Your task to perform on an android device: Go to ESPN.com Image 0: 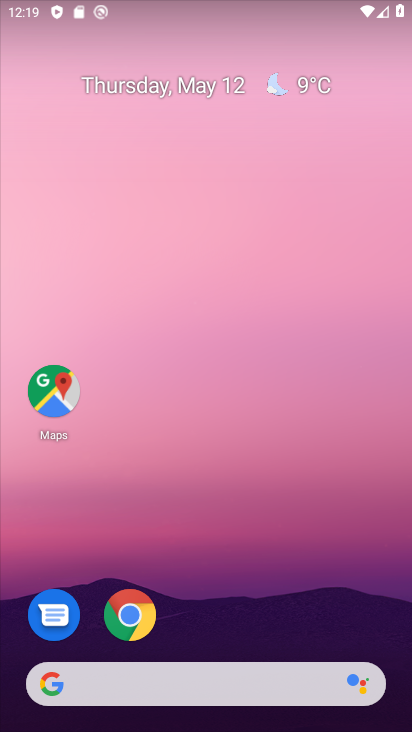
Step 0: click (132, 614)
Your task to perform on an android device: Go to ESPN.com Image 1: 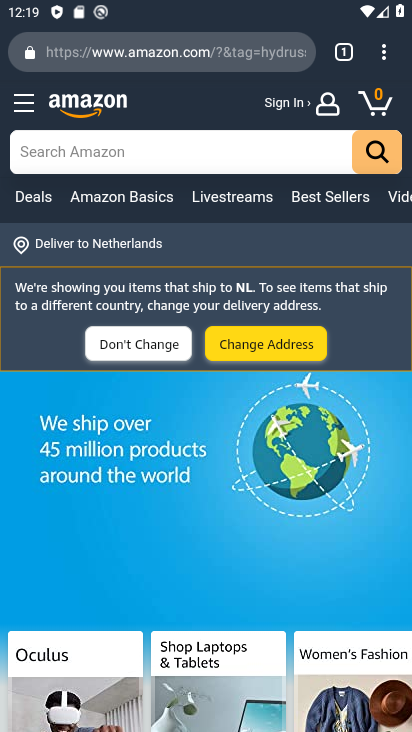
Step 1: click (290, 51)
Your task to perform on an android device: Go to ESPN.com Image 2: 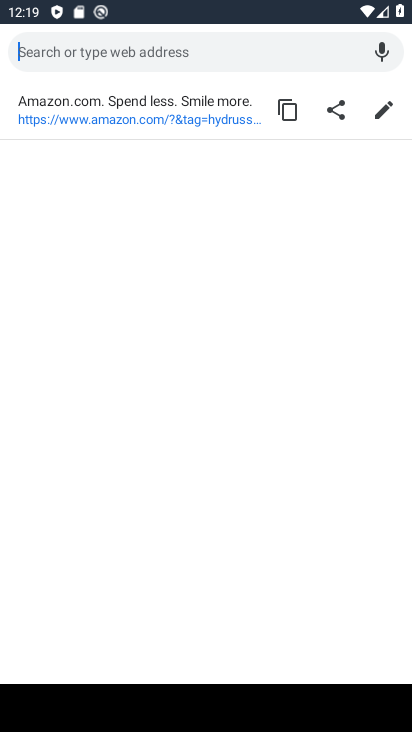
Step 2: type "ESPN.com"
Your task to perform on an android device: Go to ESPN.com Image 3: 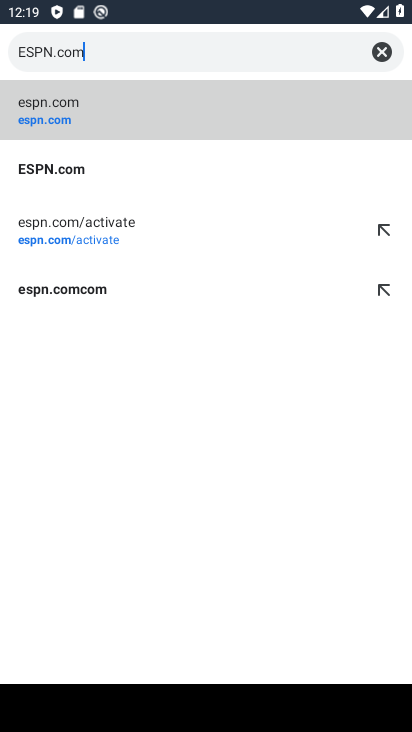
Step 3: click (44, 173)
Your task to perform on an android device: Go to ESPN.com Image 4: 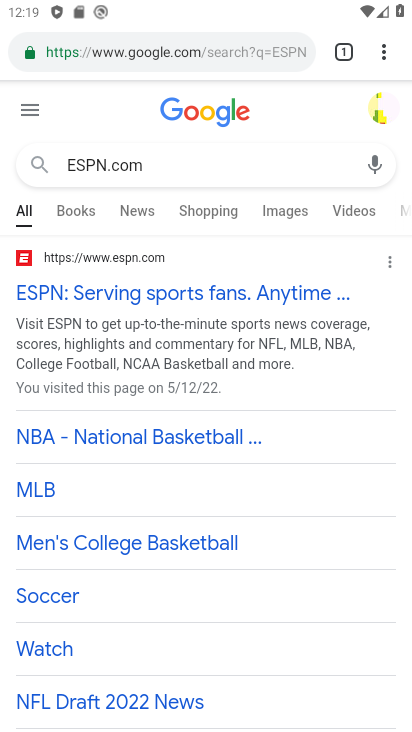
Step 4: click (83, 286)
Your task to perform on an android device: Go to ESPN.com Image 5: 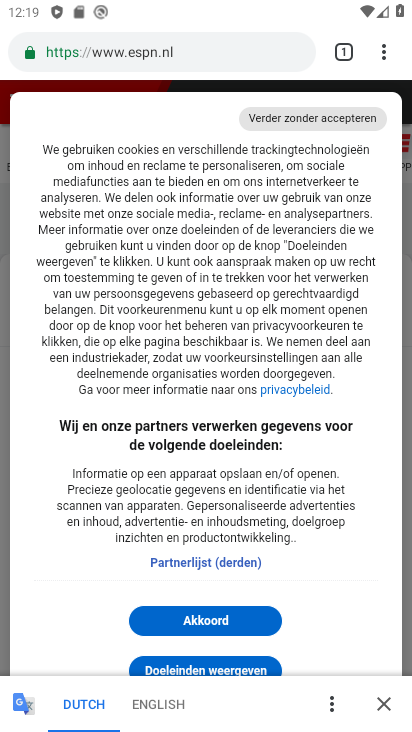
Step 5: task complete